Your task to perform on an android device: Go to sound settings Image 0: 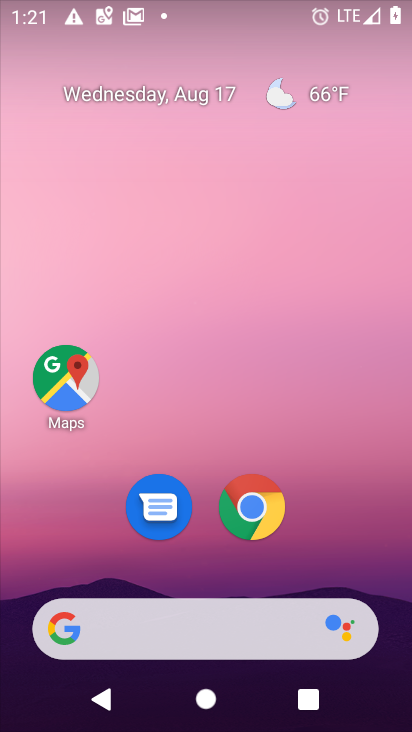
Step 0: drag from (280, 597) to (386, 1)
Your task to perform on an android device: Go to sound settings Image 1: 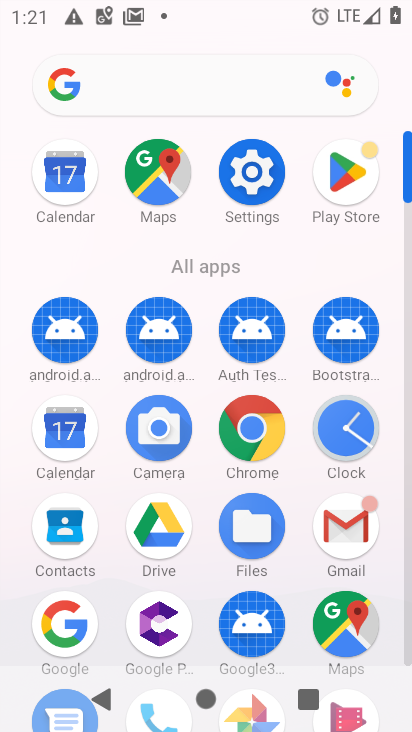
Step 1: click (243, 176)
Your task to perform on an android device: Go to sound settings Image 2: 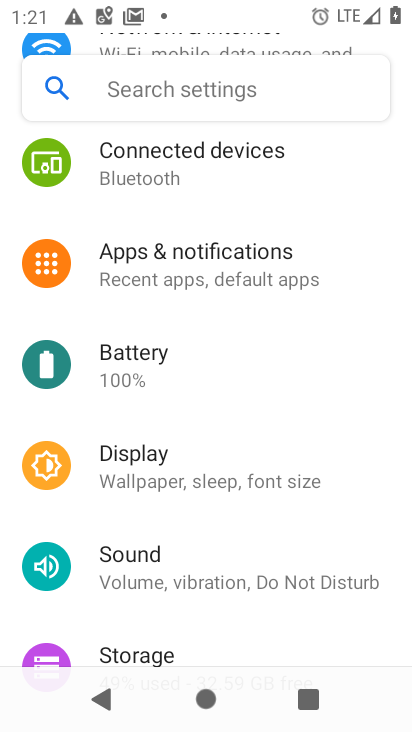
Step 2: click (172, 559)
Your task to perform on an android device: Go to sound settings Image 3: 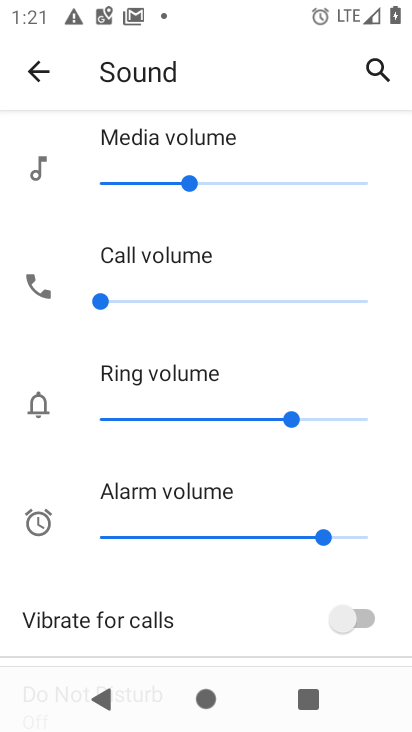
Step 3: task complete